Your task to perform on an android device: What does the iPhone 8 look like on eBay? Image 0: 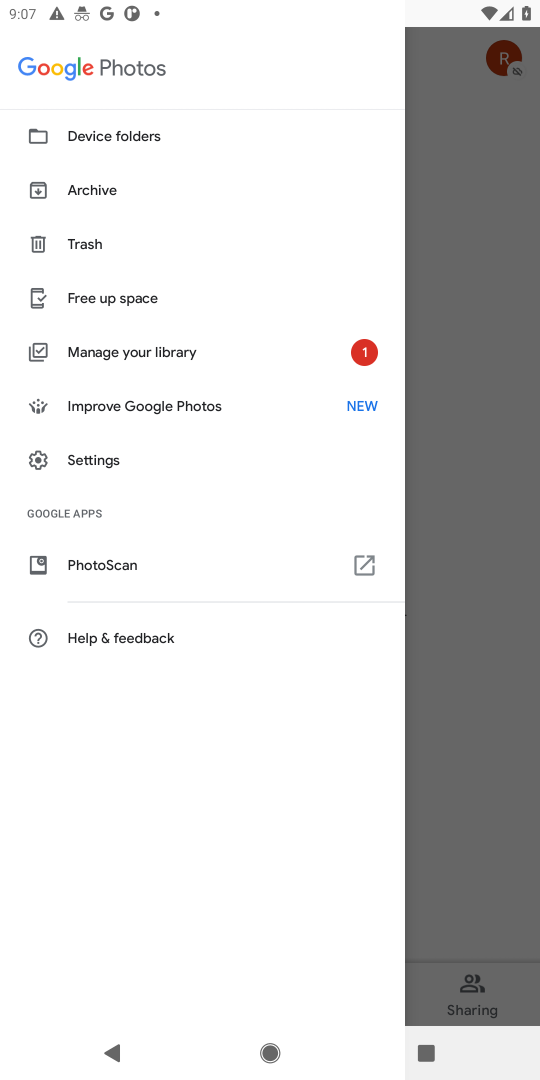
Step 0: press home button
Your task to perform on an android device: What does the iPhone 8 look like on eBay? Image 1: 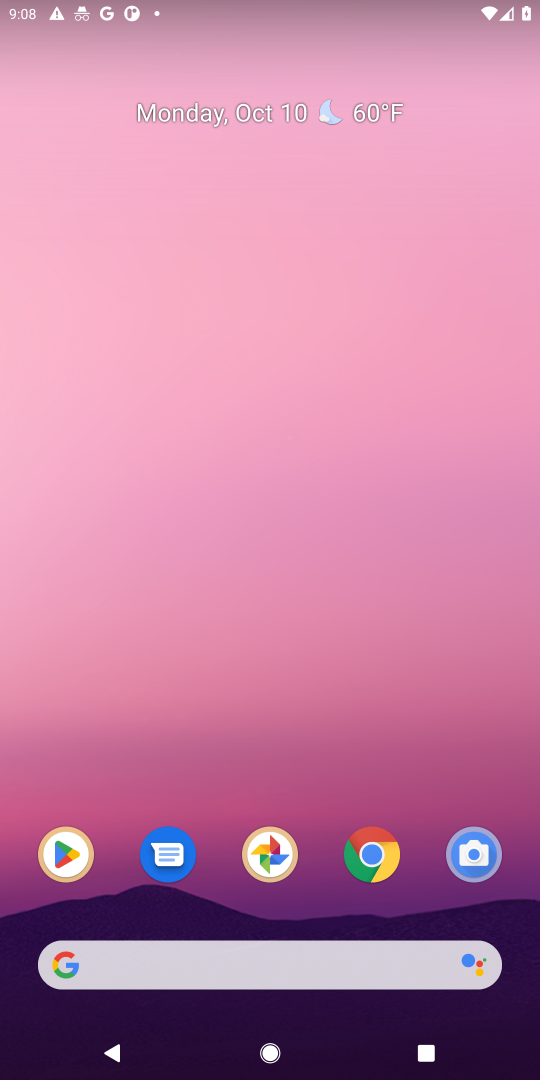
Step 1: click (372, 854)
Your task to perform on an android device: What does the iPhone 8 look like on eBay? Image 2: 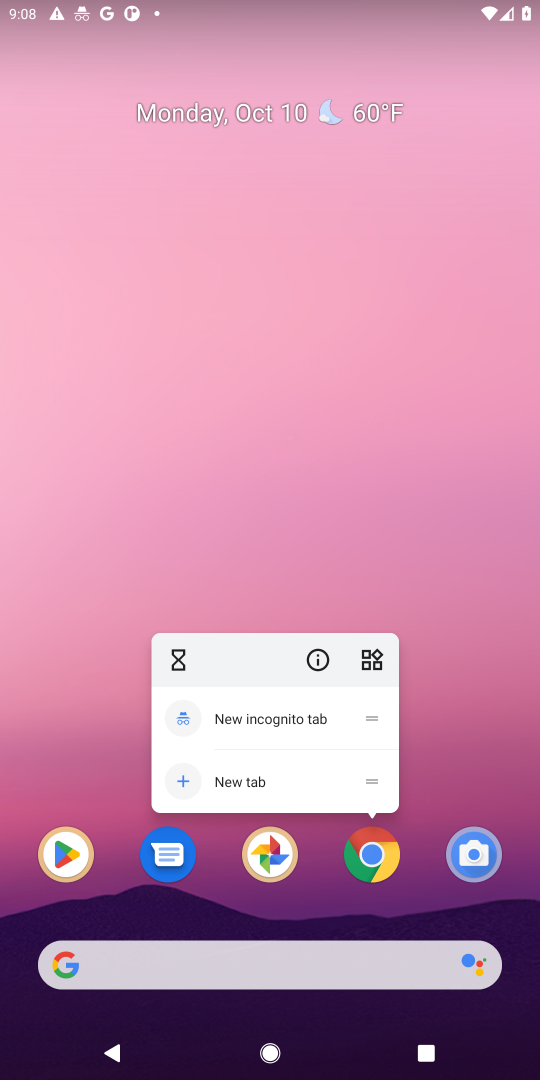
Step 2: click (369, 862)
Your task to perform on an android device: What does the iPhone 8 look like on eBay? Image 3: 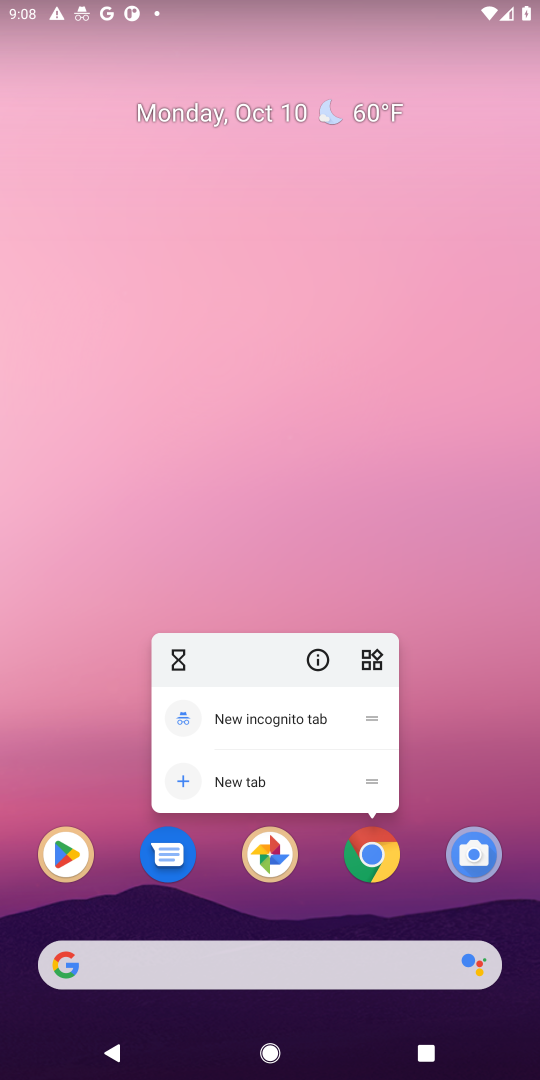
Step 3: click (369, 862)
Your task to perform on an android device: What does the iPhone 8 look like on eBay? Image 4: 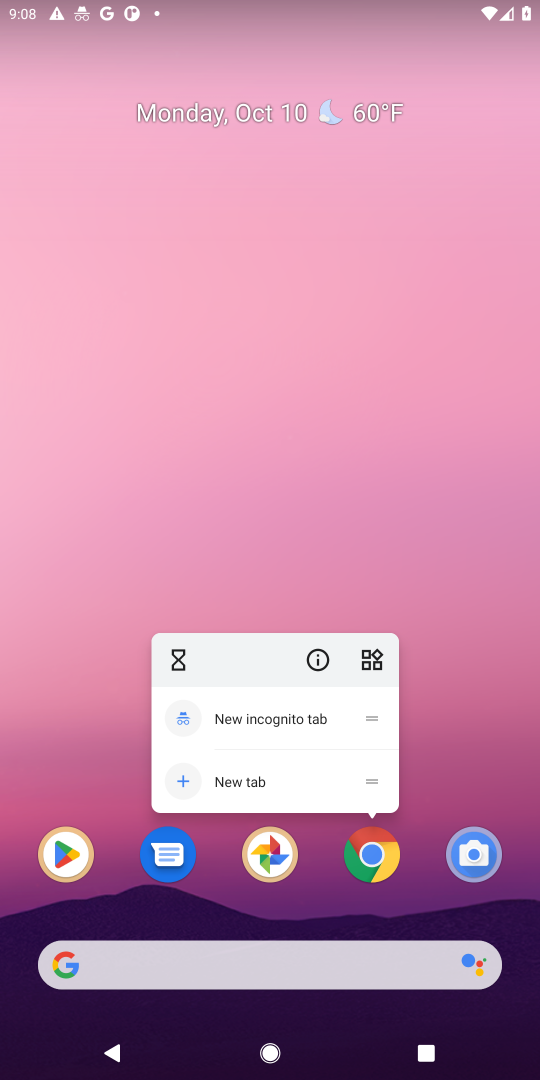
Step 4: click (369, 863)
Your task to perform on an android device: What does the iPhone 8 look like on eBay? Image 5: 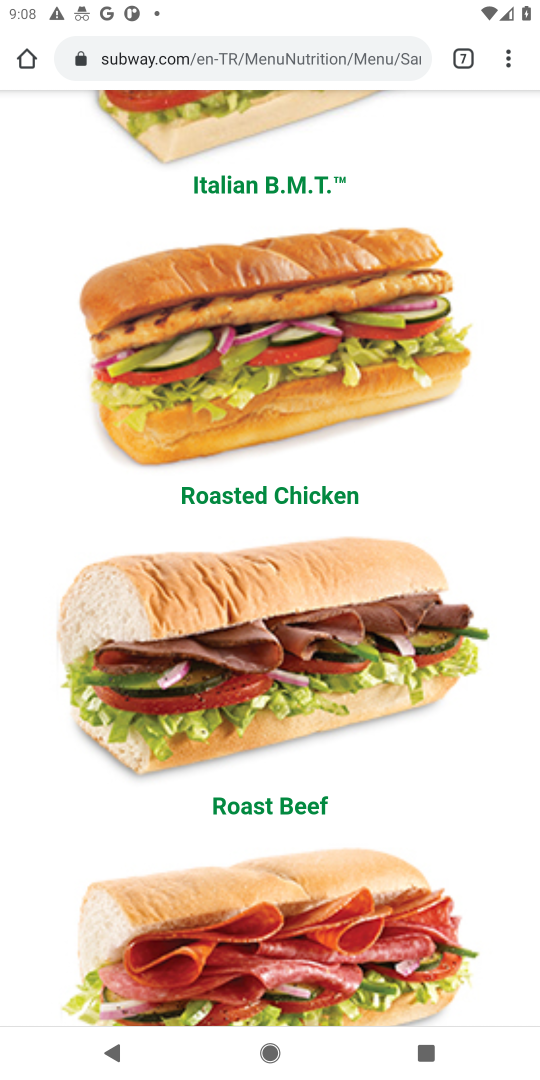
Step 5: click (352, 49)
Your task to perform on an android device: What does the iPhone 8 look like on eBay? Image 6: 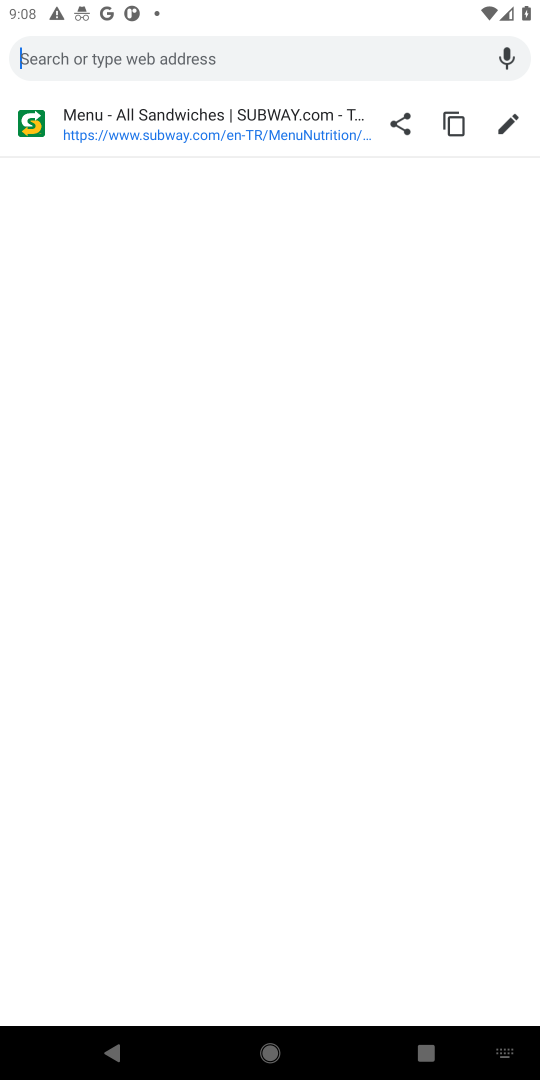
Step 6: type "What does the iPhone 8 look like on eBay"
Your task to perform on an android device: What does the iPhone 8 look like on eBay? Image 7: 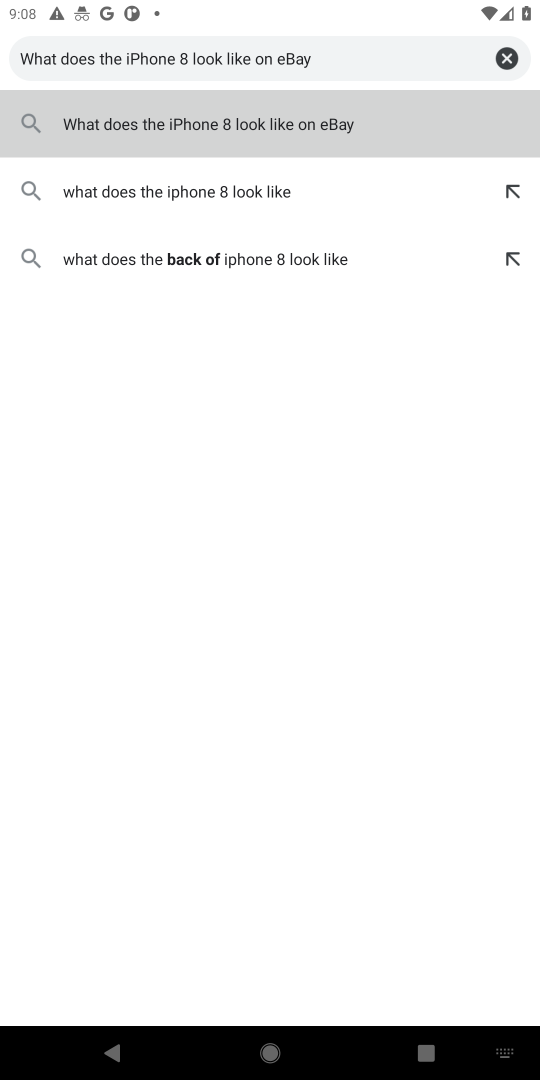
Step 7: press enter
Your task to perform on an android device: What does the iPhone 8 look like on eBay? Image 8: 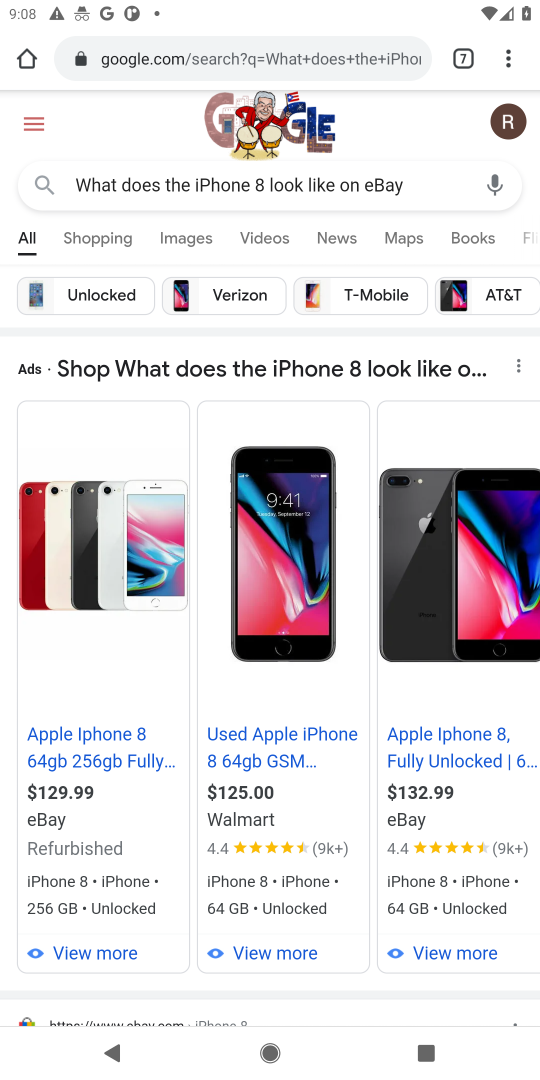
Step 8: click (83, 761)
Your task to perform on an android device: What does the iPhone 8 look like on eBay? Image 9: 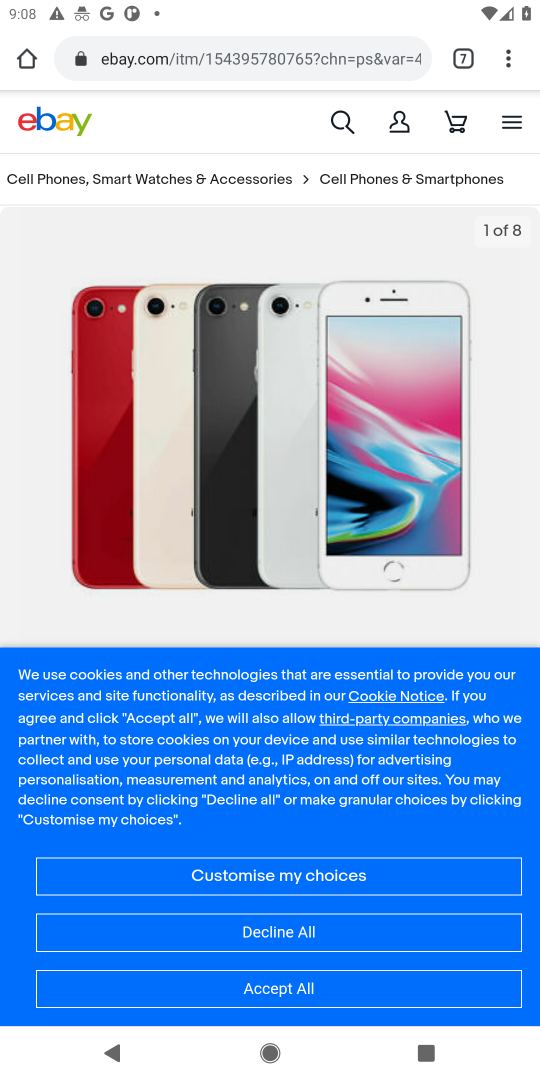
Step 9: click (255, 1000)
Your task to perform on an android device: What does the iPhone 8 look like on eBay? Image 10: 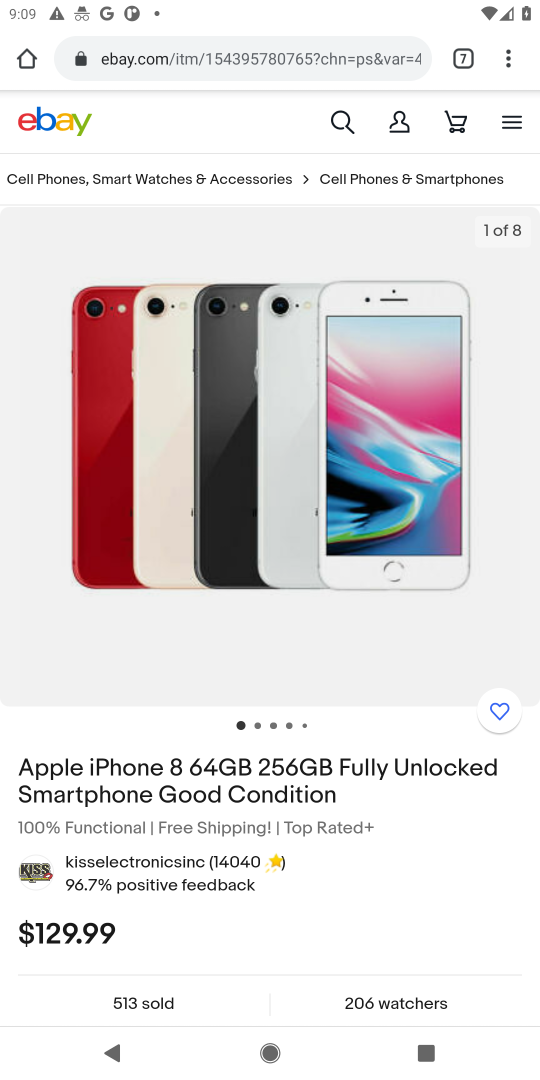
Step 10: task complete